Your task to perform on an android device: turn off javascript in the chrome app Image 0: 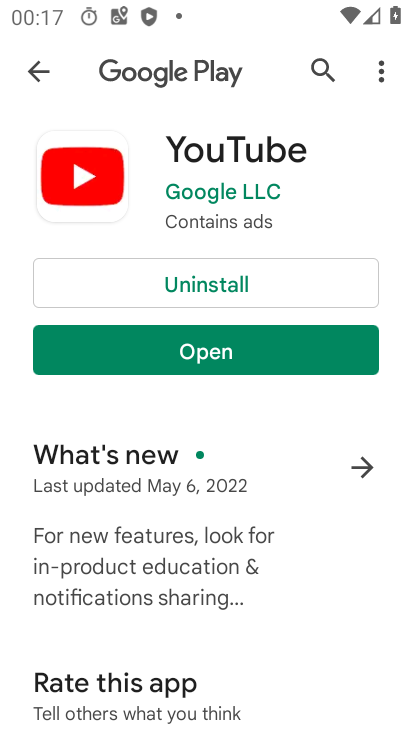
Step 0: press home button
Your task to perform on an android device: turn off javascript in the chrome app Image 1: 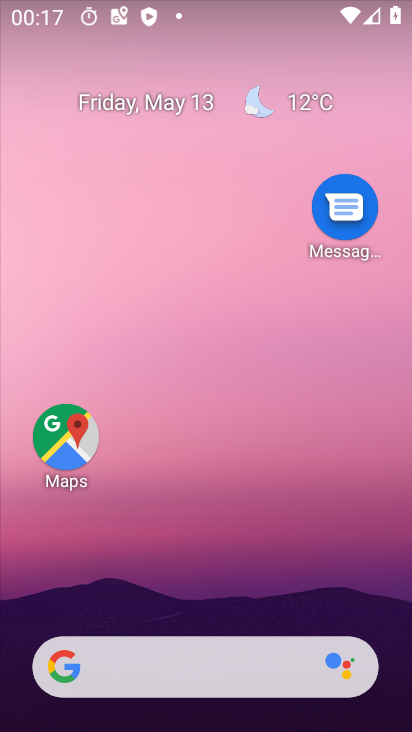
Step 1: drag from (219, 397) to (300, 6)
Your task to perform on an android device: turn off javascript in the chrome app Image 2: 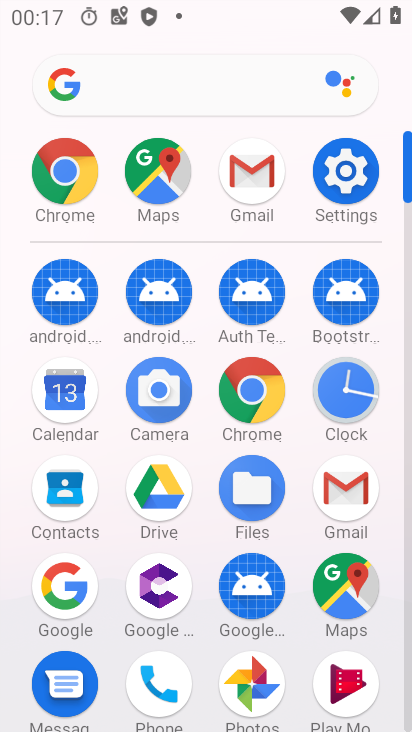
Step 2: click (69, 198)
Your task to perform on an android device: turn off javascript in the chrome app Image 3: 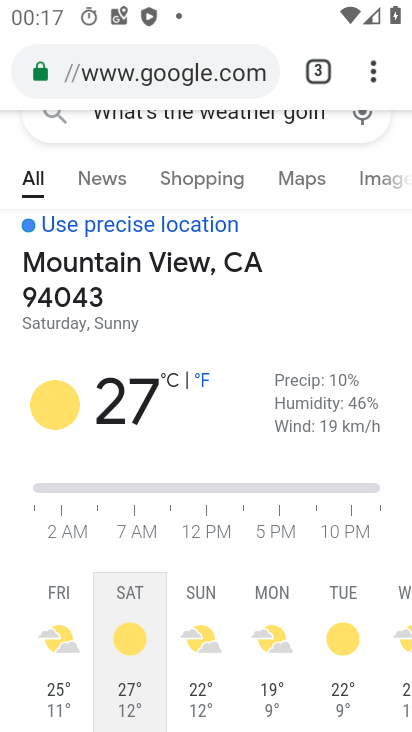
Step 3: drag from (368, 81) to (150, 554)
Your task to perform on an android device: turn off javascript in the chrome app Image 4: 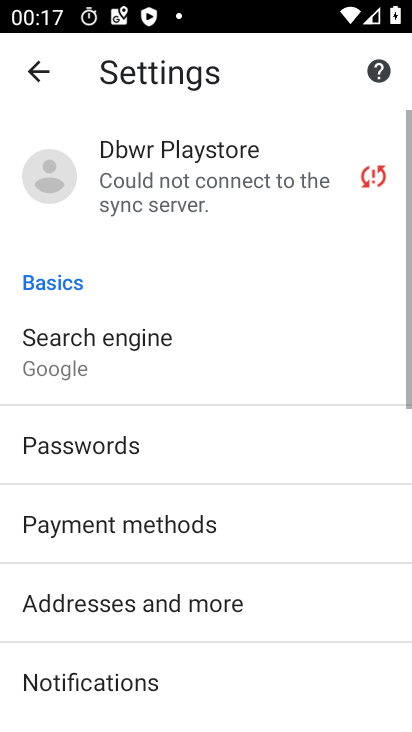
Step 4: drag from (214, 669) to (279, 101)
Your task to perform on an android device: turn off javascript in the chrome app Image 5: 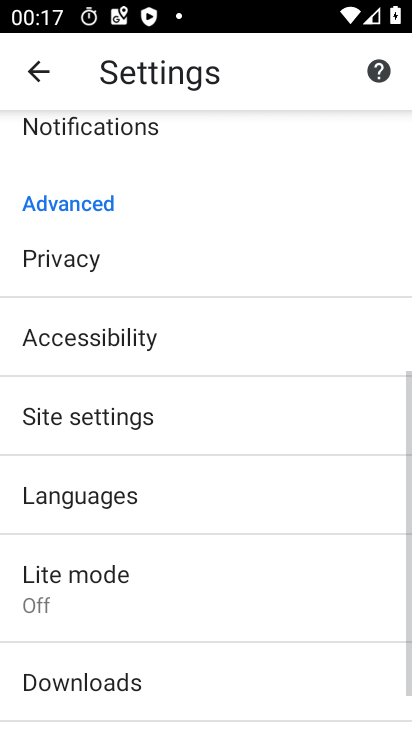
Step 5: click (163, 432)
Your task to perform on an android device: turn off javascript in the chrome app Image 6: 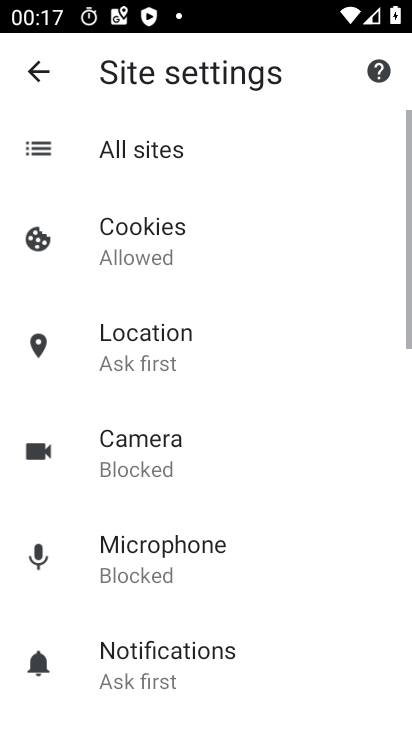
Step 6: drag from (179, 576) to (198, 249)
Your task to perform on an android device: turn off javascript in the chrome app Image 7: 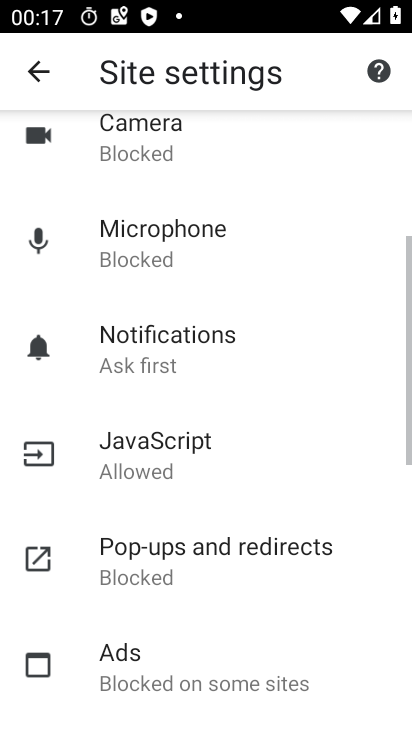
Step 7: click (203, 498)
Your task to perform on an android device: turn off javascript in the chrome app Image 8: 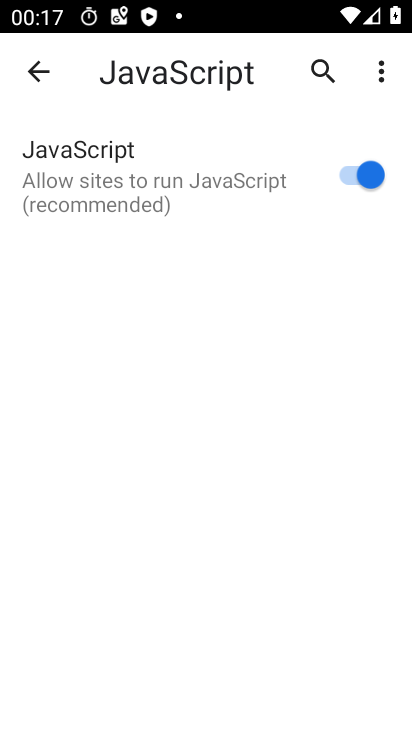
Step 8: click (322, 174)
Your task to perform on an android device: turn off javascript in the chrome app Image 9: 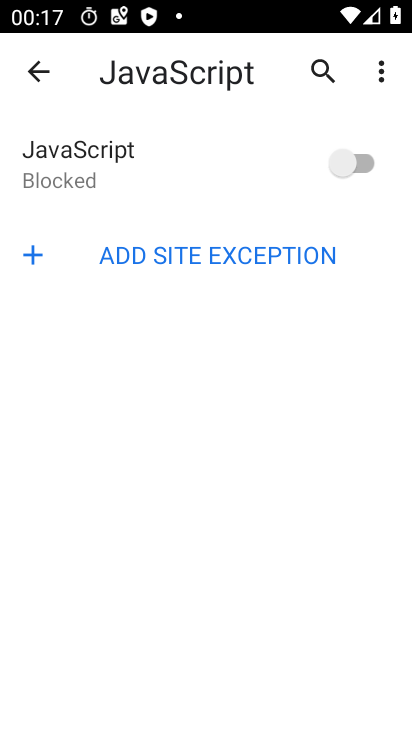
Step 9: task complete